Your task to perform on an android device: Go to Yahoo.com Image 0: 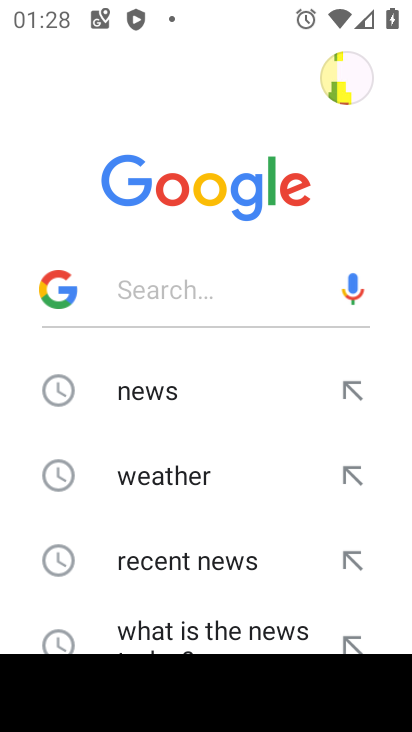
Step 0: type "yahoo.com"
Your task to perform on an android device: Go to Yahoo.com Image 1: 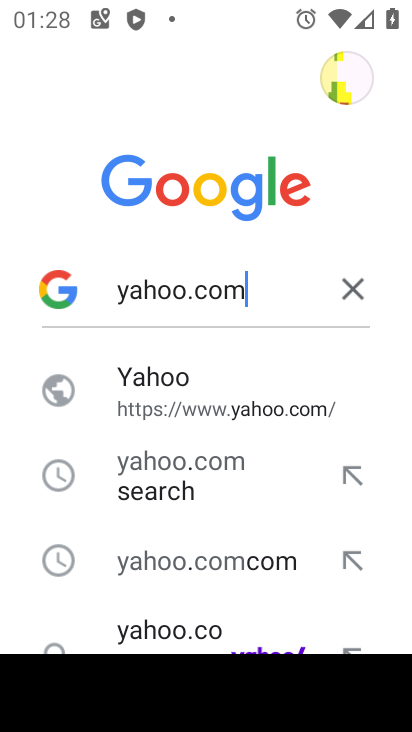
Step 1: click (165, 412)
Your task to perform on an android device: Go to Yahoo.com Image 2: 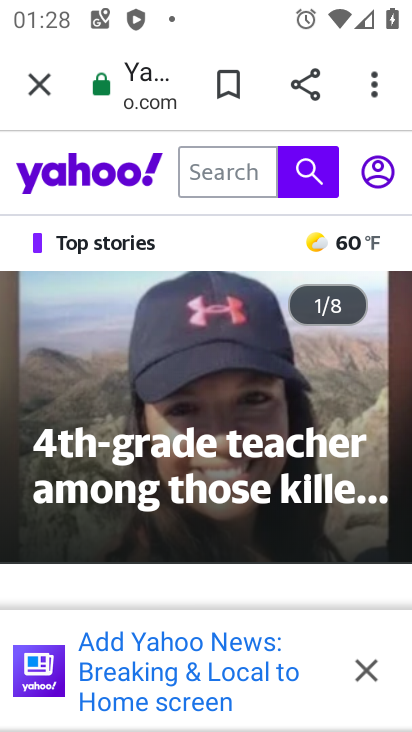
Step 2: task complete